Your task to perform on an android device: Open the stopwatch Image 0: 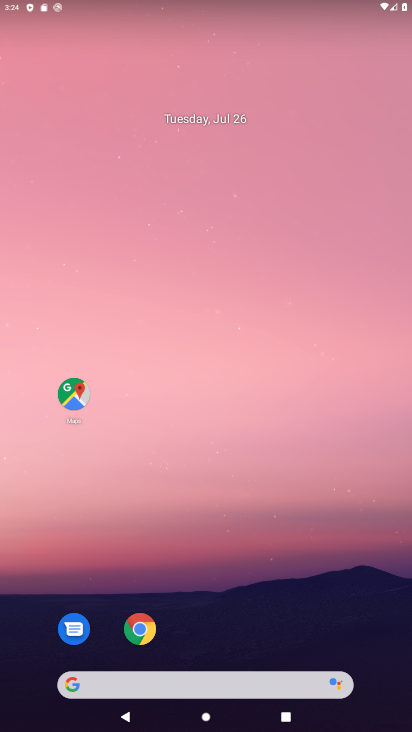
Step 0: drag from (291, 631) to (184, 0)
Your task to perform on an android device: Open the stopwatch Image 1: 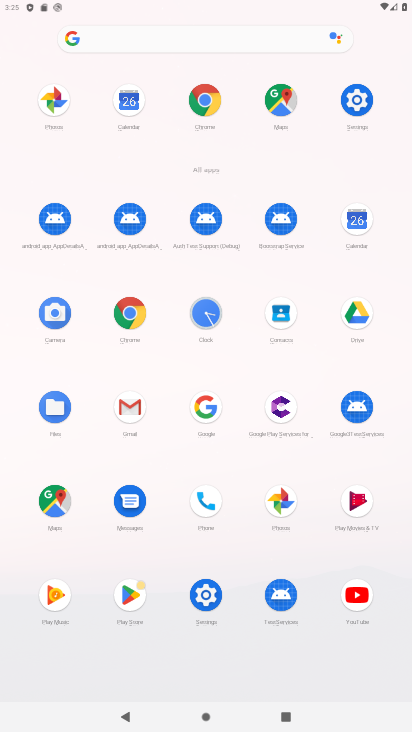
Step 1: click (199, 312)
Your task to perform on an android device: Open the stopwatch Image 2: 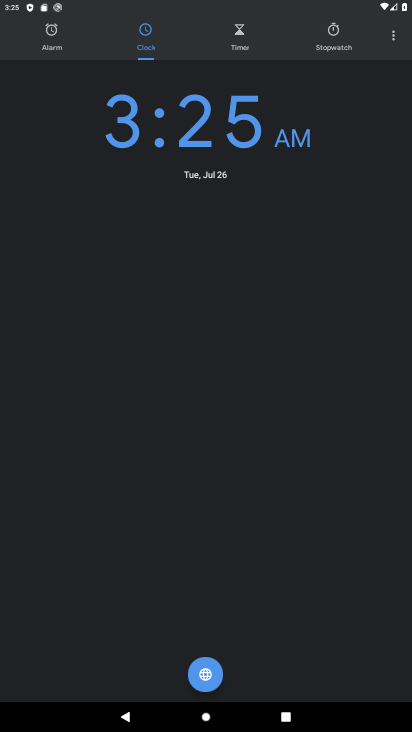
Step 2: click (338, 29)
Your task to perform on an android device: Open the stopwatch Image 3: 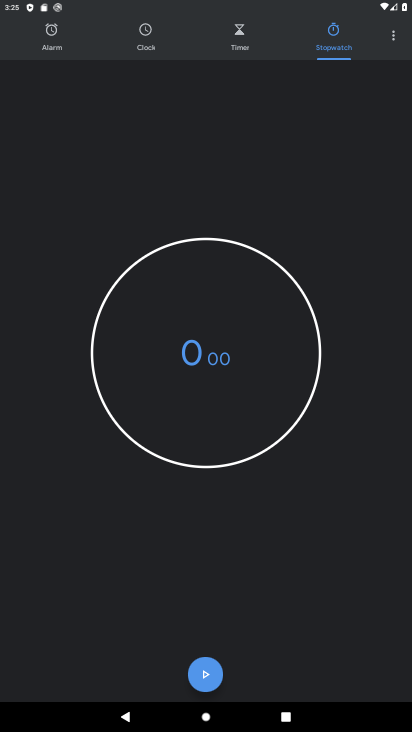
Step 3: task complete